Your task to perform on an android device: Open the map Image 0: 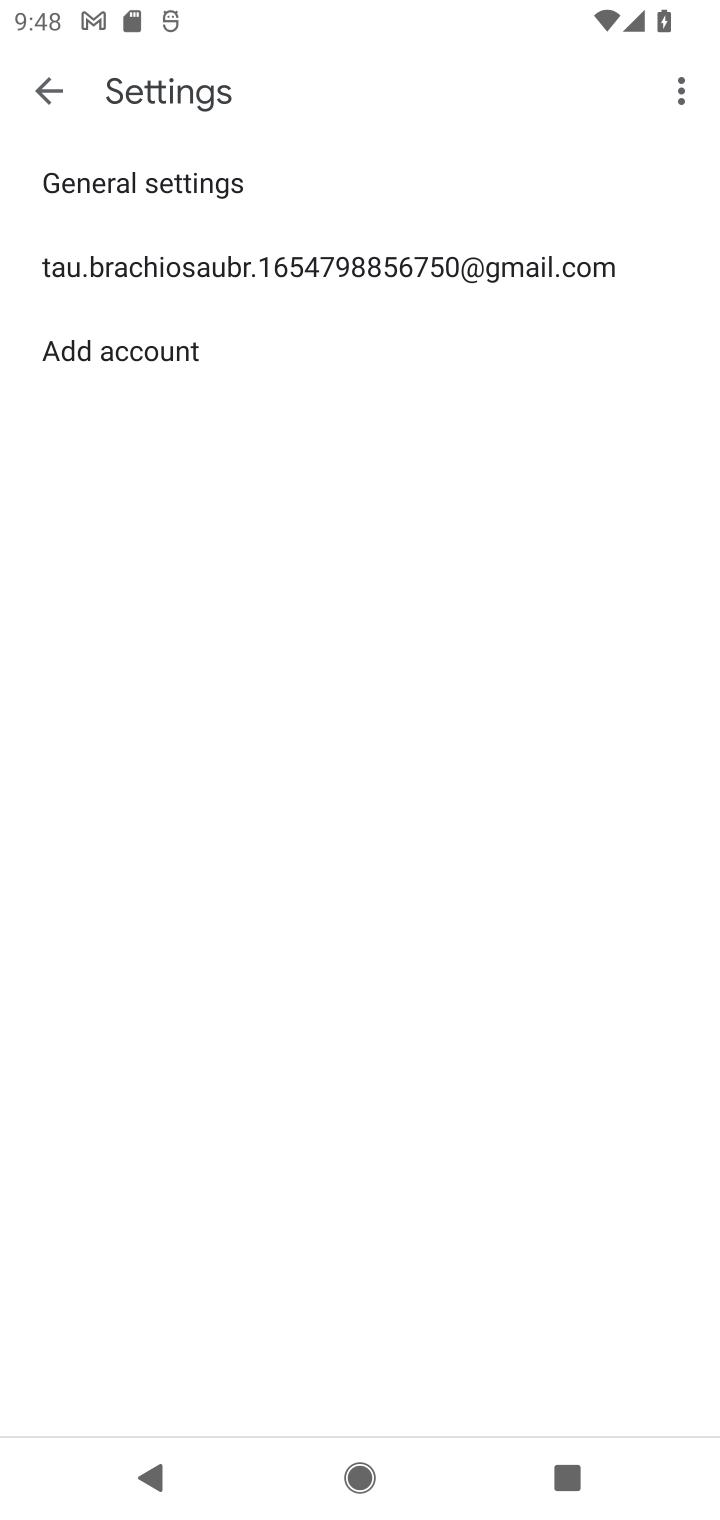
Step 0: press home button
Your task to perform on an android device: Open the map Image 1: 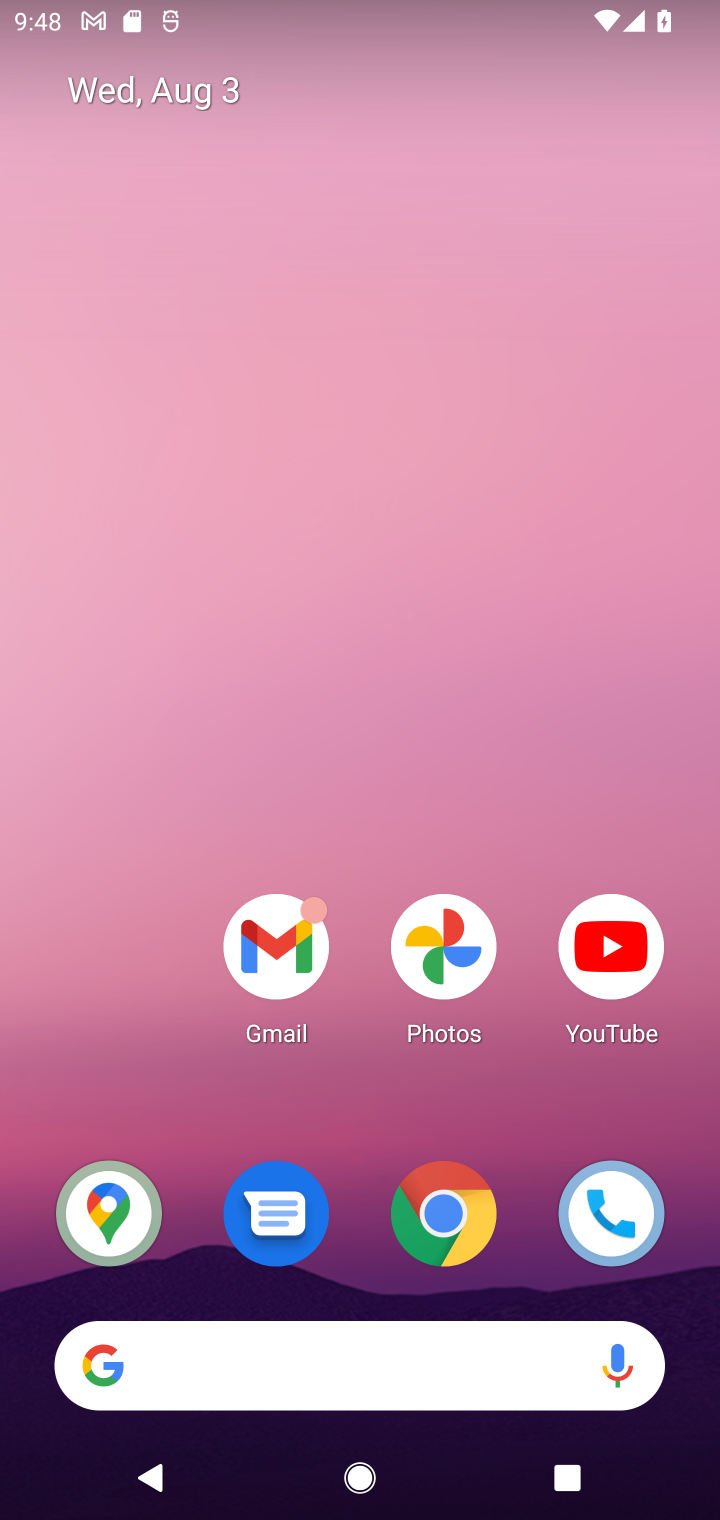
Step 1: drag from (405, 1299) to (331, 124)
Your task to perform on an android device: Open the map Image 2: 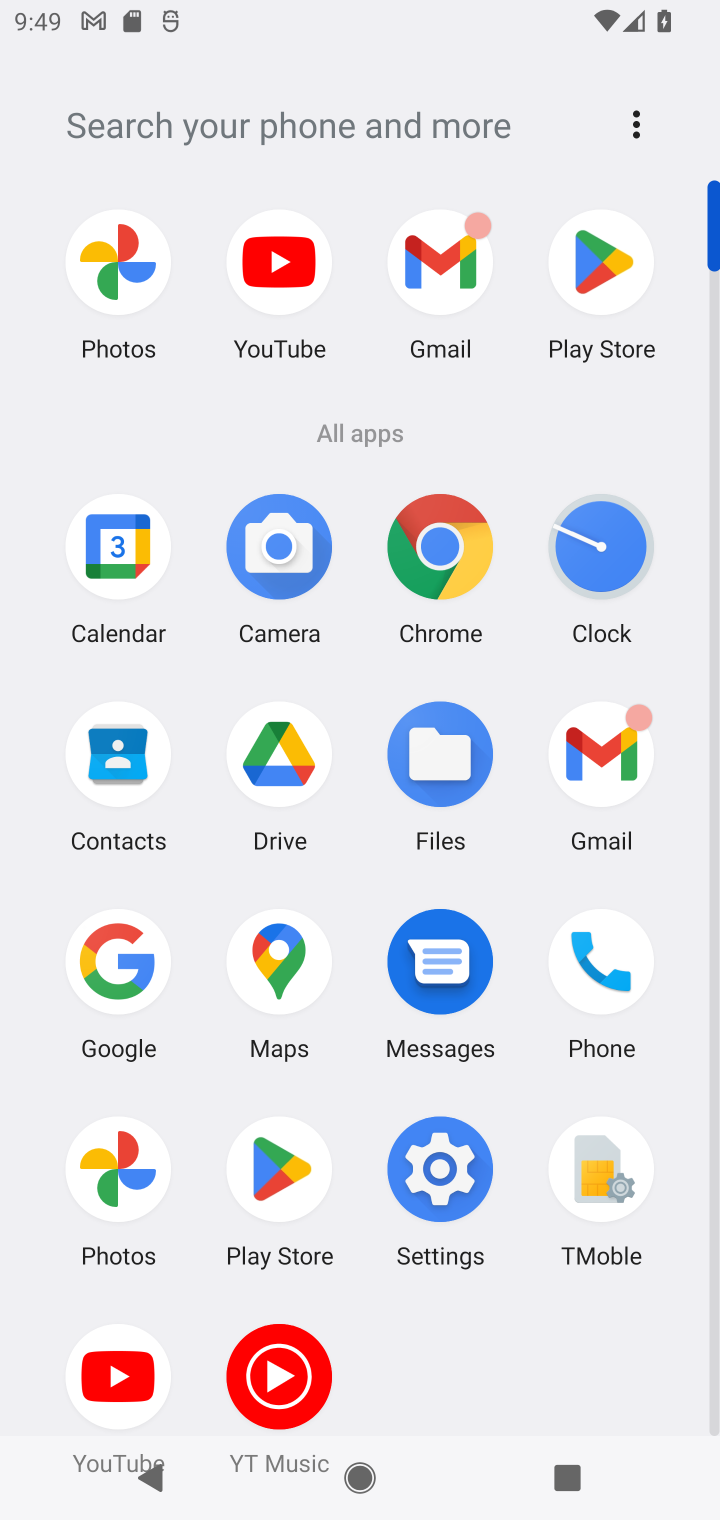
Step 2: click (288, 997)
Your task to perform on an android device: Open the map Image 3: 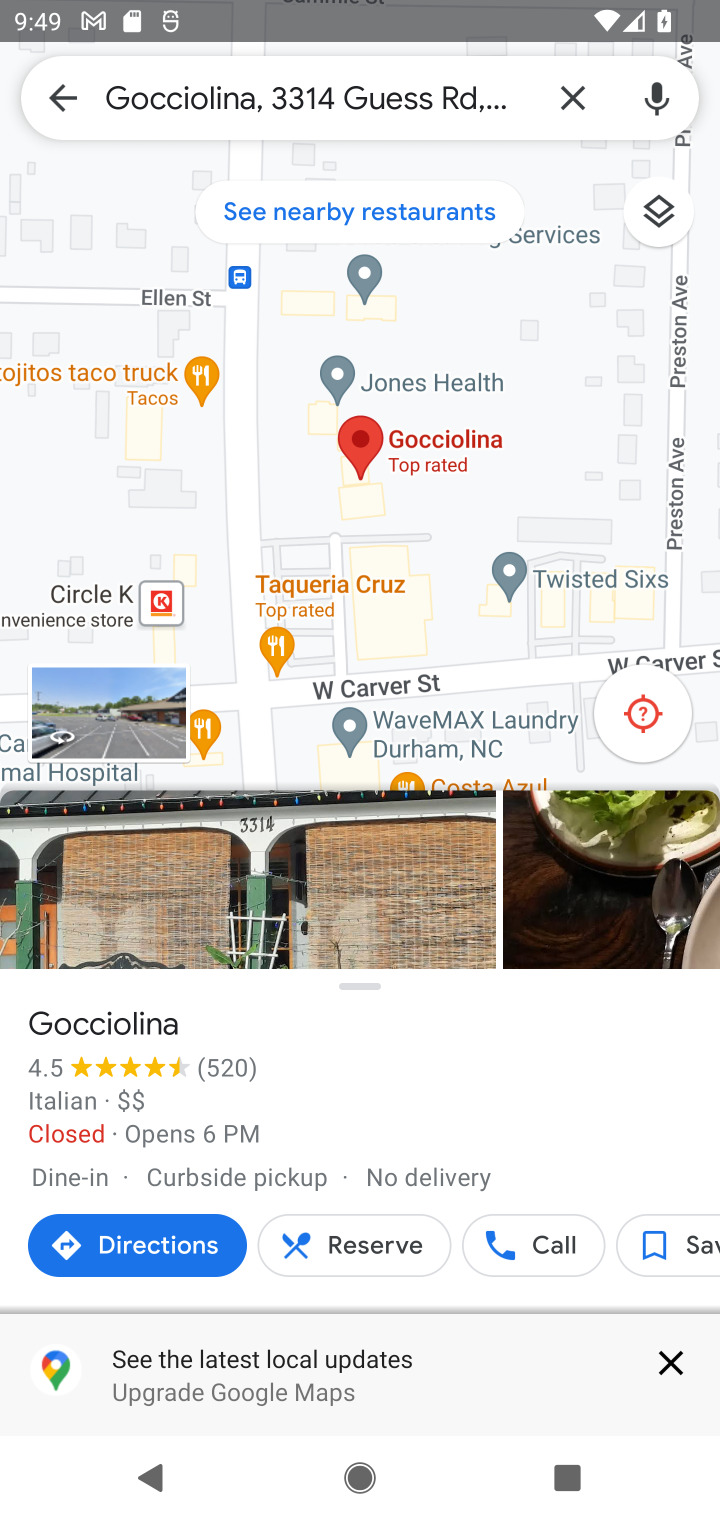
Step 3: task complete